Your task to perform on an android device: empty trash in the gmail app Image 0: 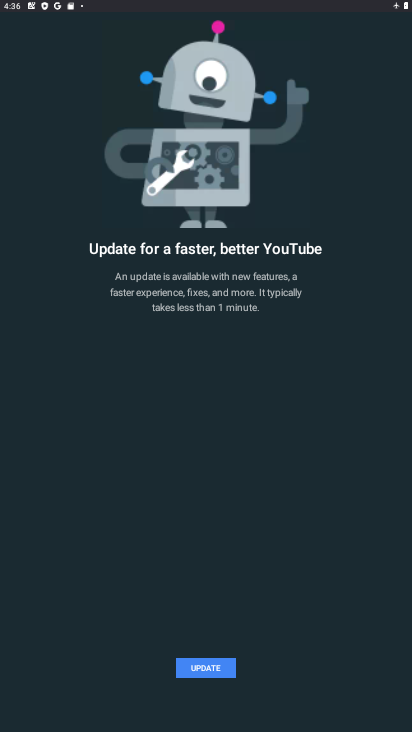
Step 0: press home button
Your task to perform on an android device: empty trash in the gmail app Image 1: 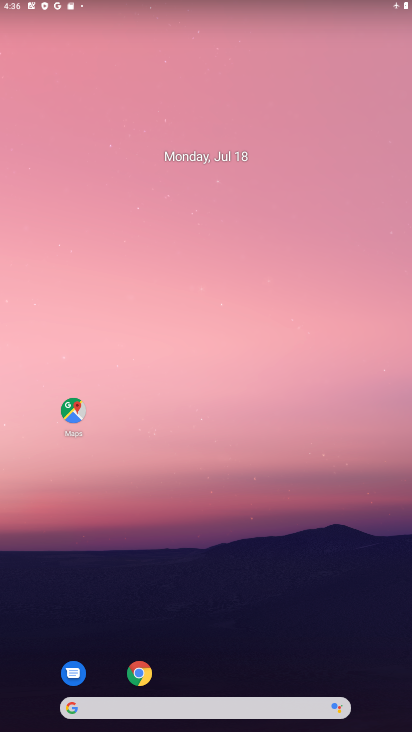
Step 1: drag from (310, 671) to (186, 144)
Your task to perform on an android device: empty trash in the gmail app Image 2: 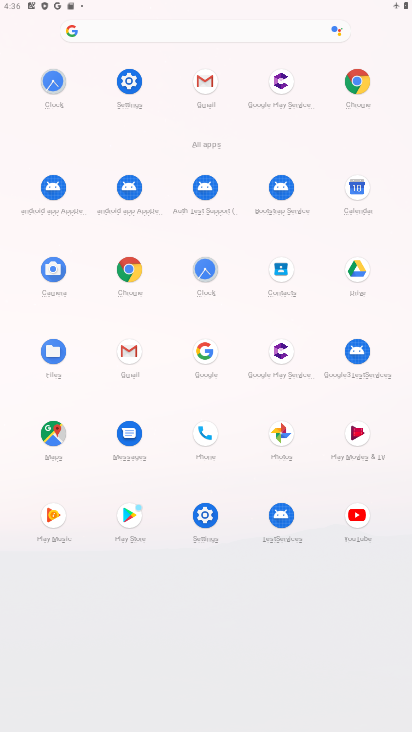
Step 2: click (202, 82)
Your task to perform on an android device: empty trash in the gmail app Image 3: 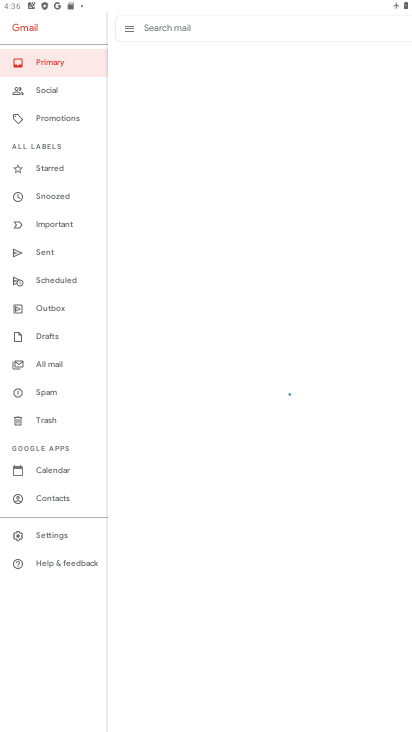
Step 3: click (49, 420)
Your task to perform on an android device: empty trash in the gmail app Image 4: 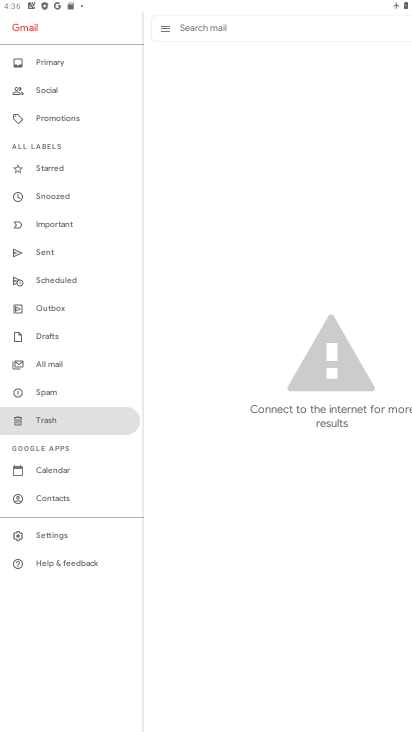
Step 4: task complete